Your task to perform on an android device: turn on wifi Image 0: 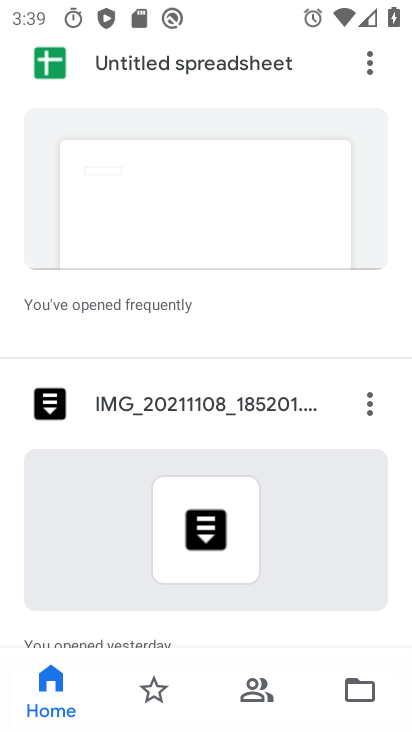
Step 0: press home button
Your task to perform on an android device: turn on wifi Image 1: 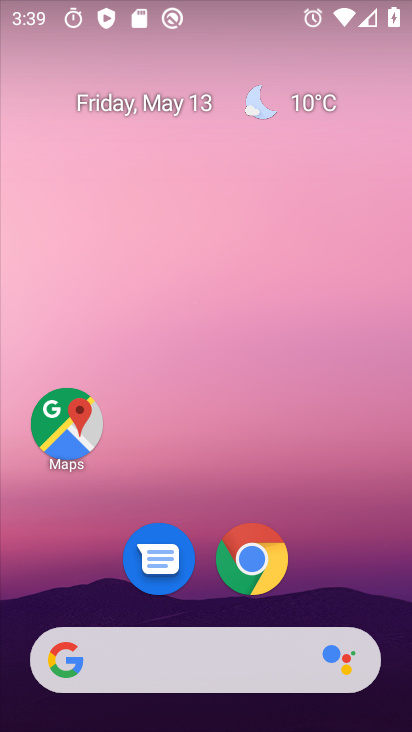
Step 1: drag from (209, 578) to (214, 204)
Your task to perform on an android device: turn on wifi Image 2: 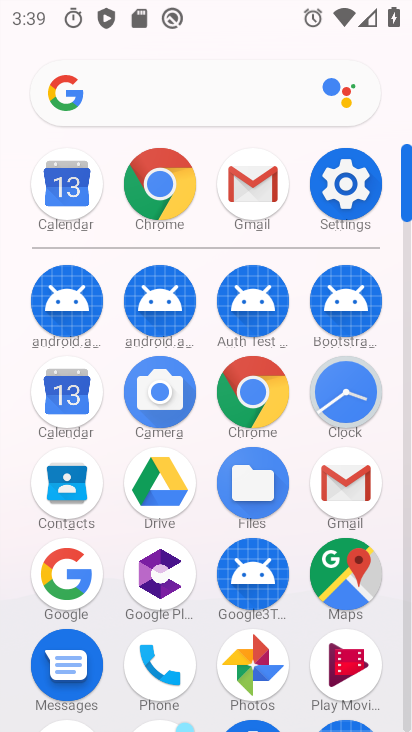
Step 2: click (359, 190)
Your task to perform on an android device: turn on wifi Image 3: 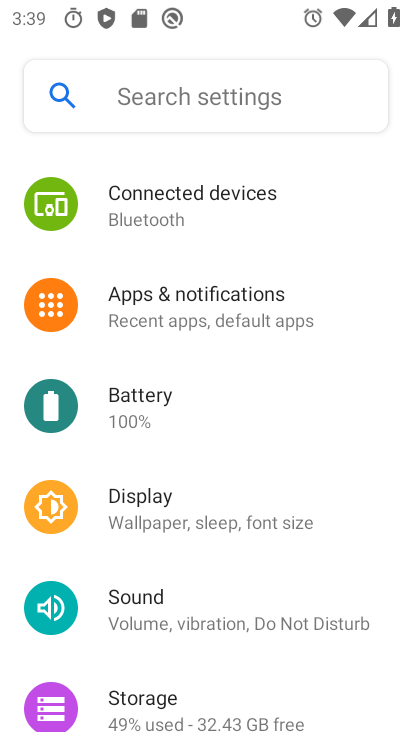
Step 3: drag from (213, 351) to (209, 580)
Your task to perform on an android device: turn on wifi Image 4: 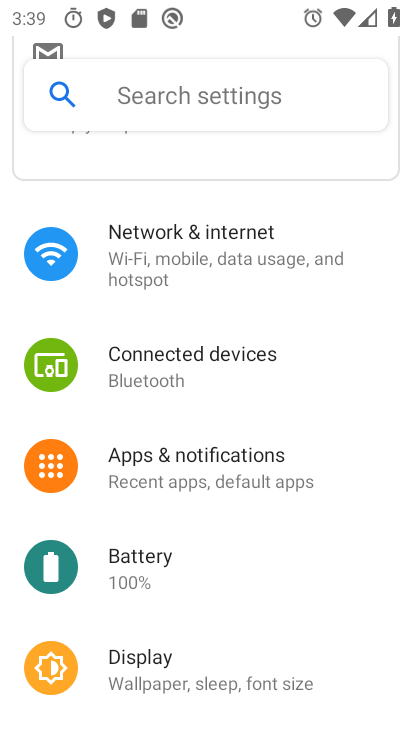
Step 4: drag from (254, 243) to (251, 470)
Your task to perform on an android device: turn on wifi Image 5: 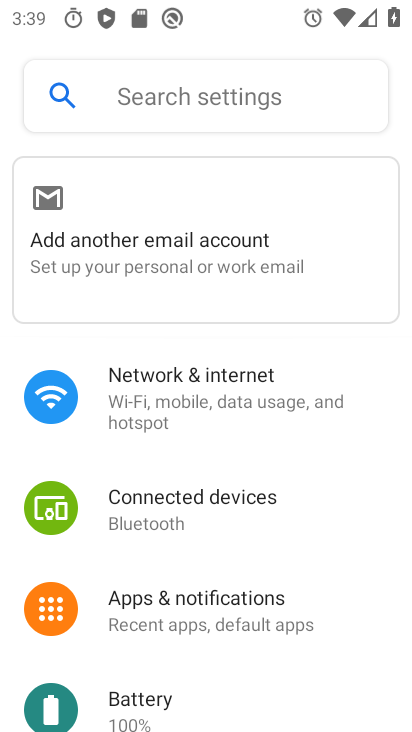
Step 5: click (209, 413)
Your task to perform on an android device: turn on wifi Image 6: 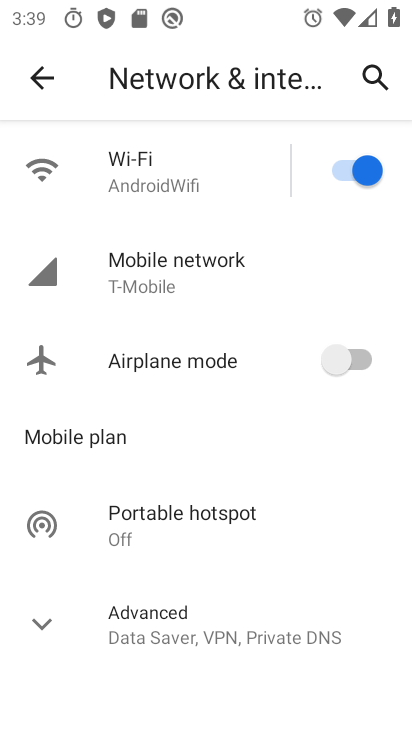
Step 6: task complete